Your task to perform on an android device: toggle wifi Image 0: 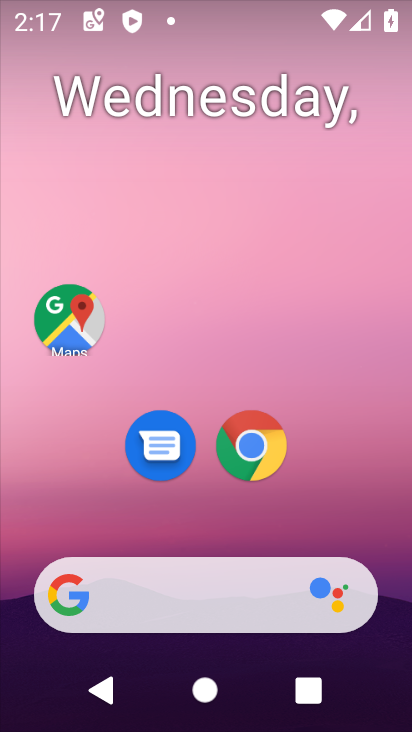
Step 0: drag from (216, 538) to (230, 150)
Your task to perform on an android device: toggle wifi Image 1: 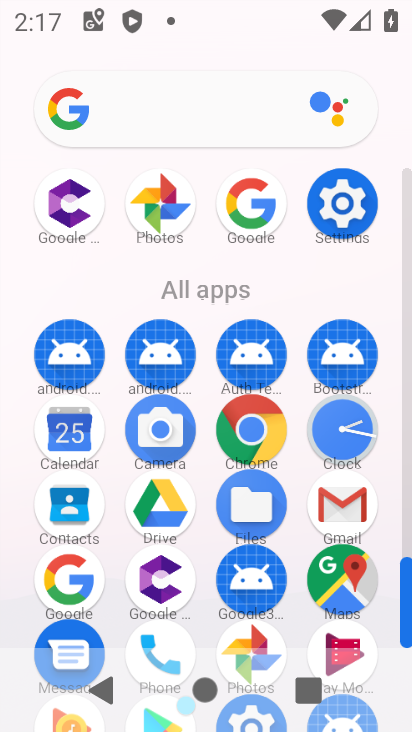
Step 1: click (333, 207)
Your task to perform on an android device: toggle wifi Image 2: 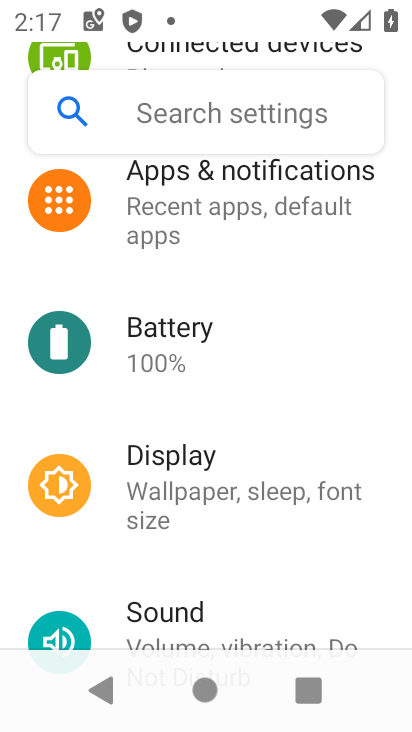
Step 2: drag from (230, 178) to (228, 575)
Your task to perform on an android device: toggle wifi Image 3: 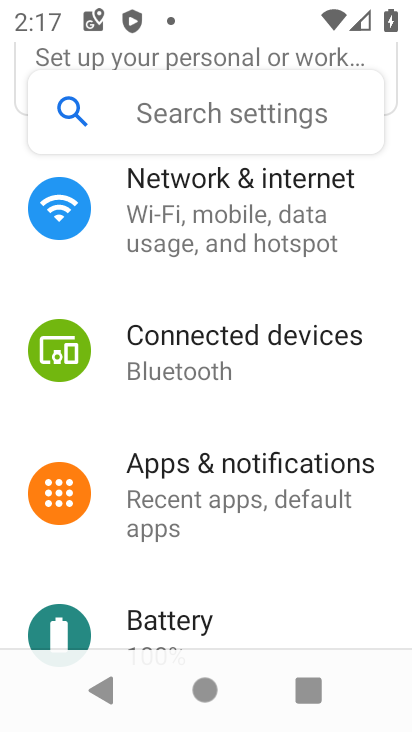
Step 3: click (213, 235)
Your task to perform on an android device: toggle wifi Image 4: 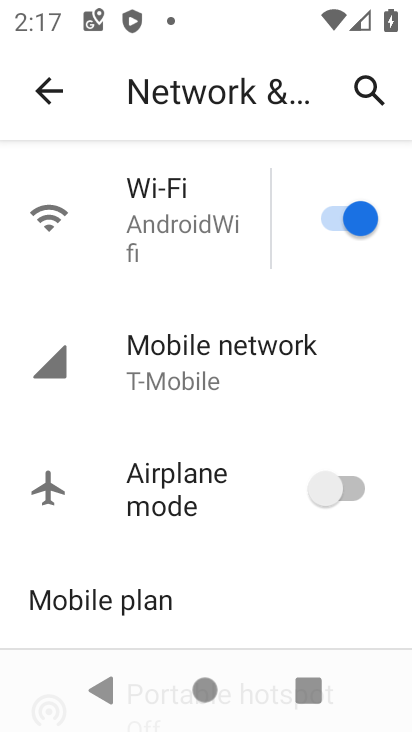
Step 4: click (333, 218)
Your task to perform on an android device: toggle wifi Image 5: 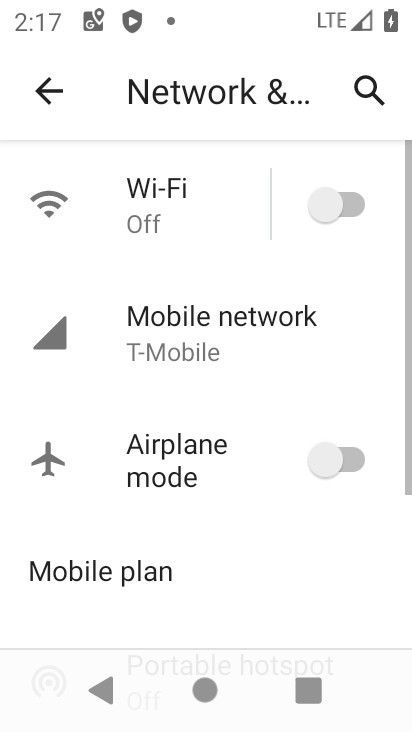
Step 5: task complete